Your task to perform on an android device: Go to Reddit.com Image 0: 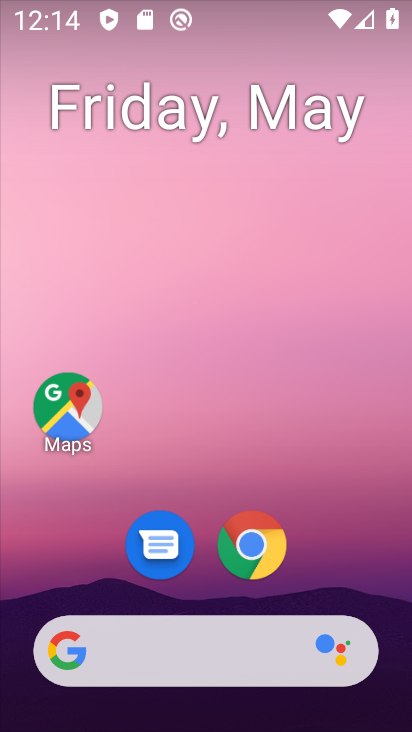
Step 0: click (245, 552)
Your task to perform on an android device: Go to Reddit.com Image 1: 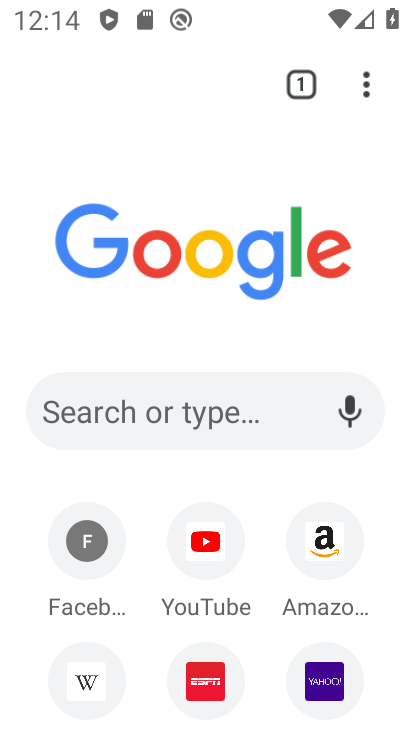
Step 1: click (366, 92)
Your task to perform on an android device: Go to Reddit.com Image 2: 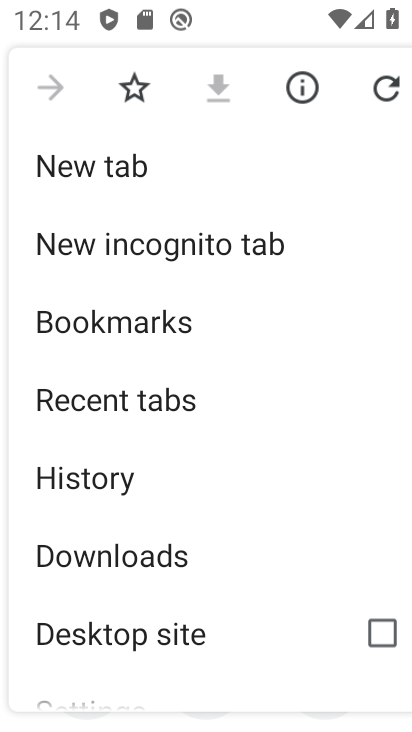
Step 2: drag from (144, 583) to (133, 251)
Your task to perform on an android device: Go to Reddit.com Image 3: 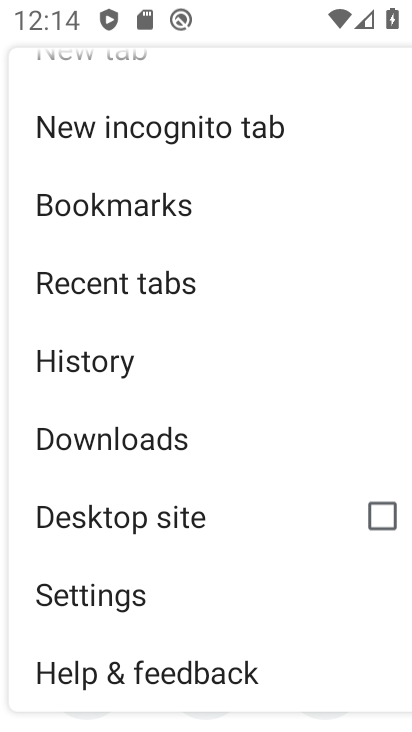
Step 3: press back button
Your task to perform on an android device: Go to Reddit.com Image 4: 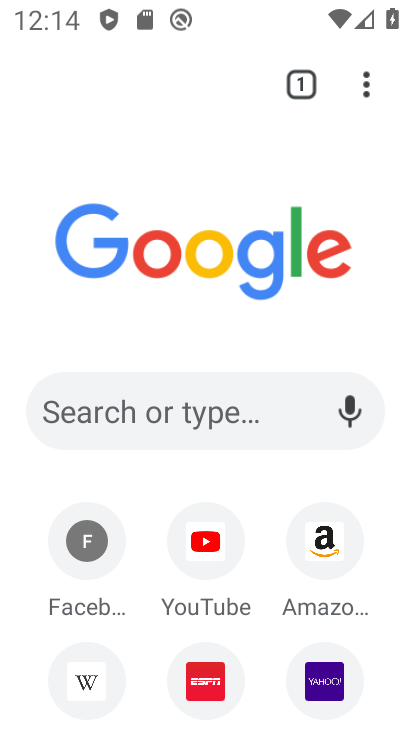
Step 4: click (186, 427)
Your task to perform on an android device: Go to Reddit.com Image 5: 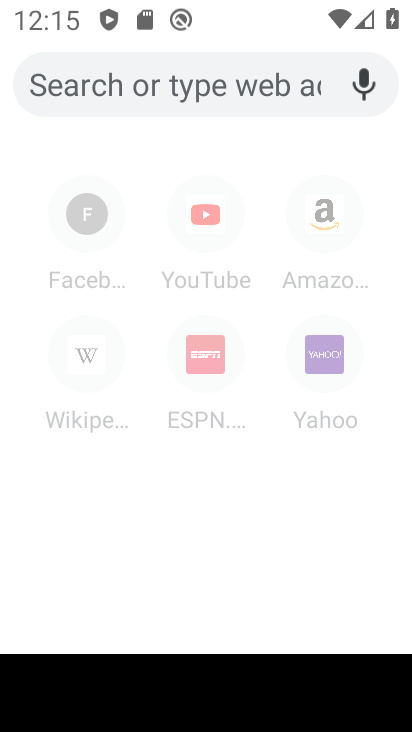
Step 5: type "www.reddit.com"
Your task to perform on an android device: Go to Reddit.com Image 6: 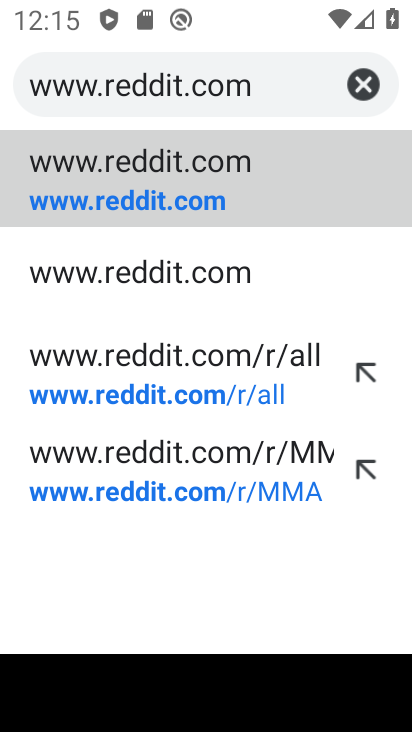
Step 6: click (122, 172)
Your task to perform on an android device: Go to Reddit.com Image 7: 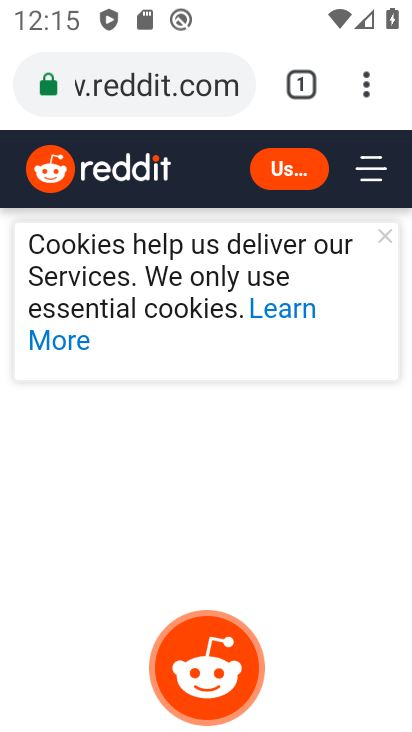
Step 7: task complete